Your task to perform on an android device: move a message to another label in the gmail app Image 0: 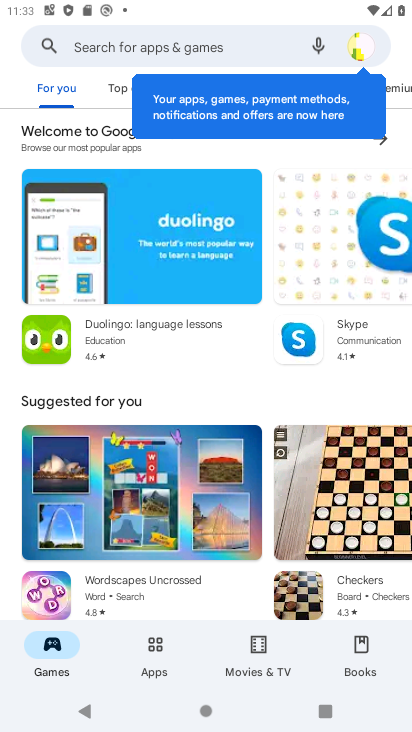
Step 0: press home button
Your task to perform on an android device: move a message to another label in the gmail app Image 1: 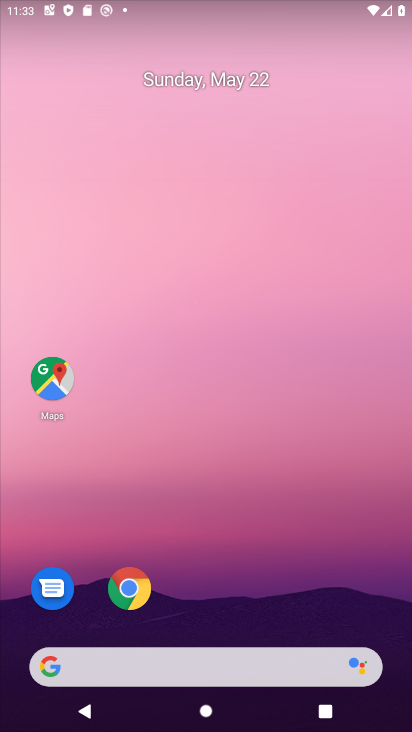
Step 1: drag from (285, 683) to (335, 20)
Your task to perform on an android device: move a message to another label in the gmail app Image 2: 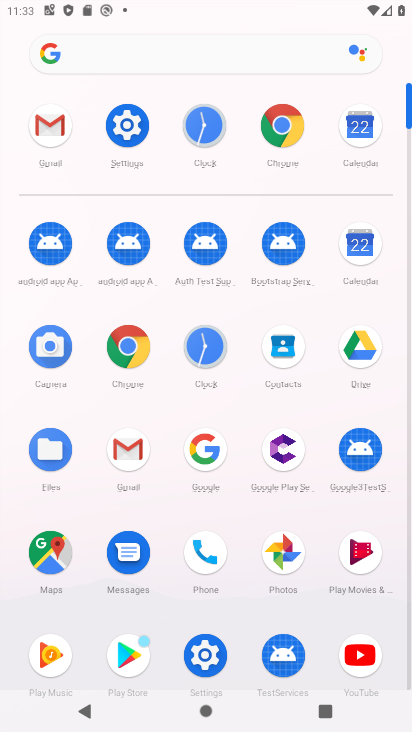
Step 2: click (50, 139)
Your task to perform on an android device: move a message to another label in the gmail app Image 3: 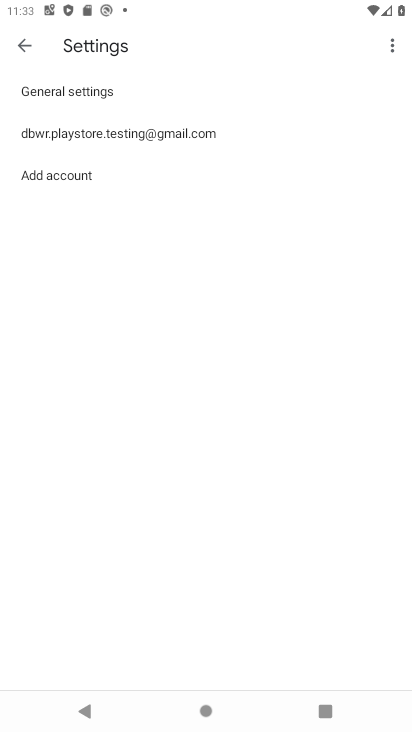
Step 3: click (94, 116)
Your task to perform on an android device: move a message to another label in the gmail app Image 4: 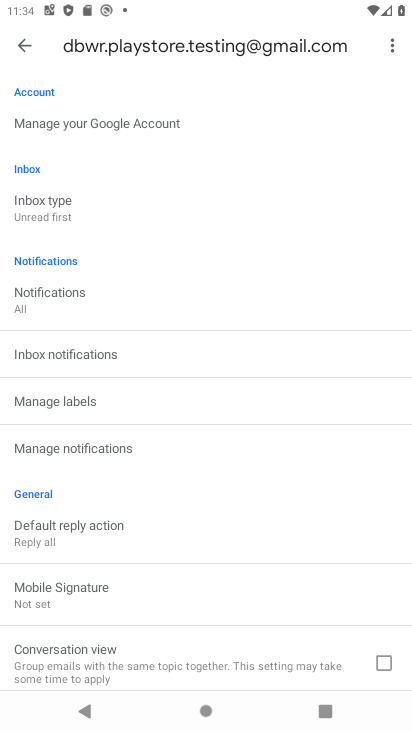
Step 4: click (103, 402)
Your task to perform on an android device: move a message to another label in the gmail app Image 5: 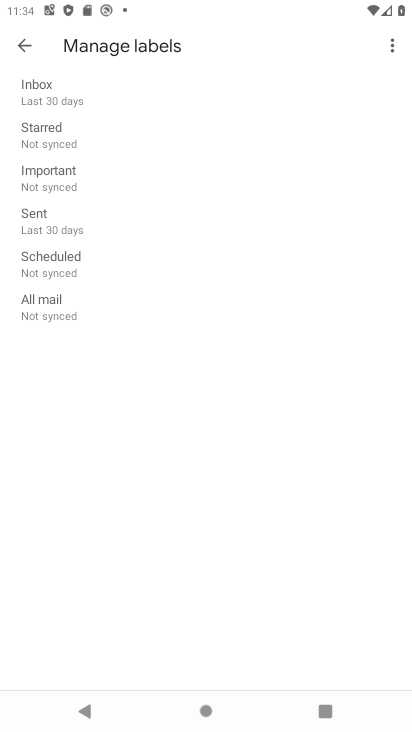
Step 5: click (101, 190)
Your task to perform on an android device: move a message to another label in the gmail app Image 6: 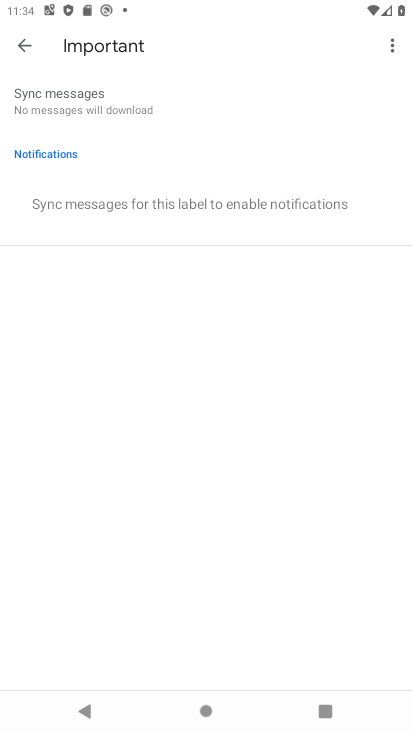
Step 6: task complete